Your task to perform on an android device: Go to wifi settings Image 0: 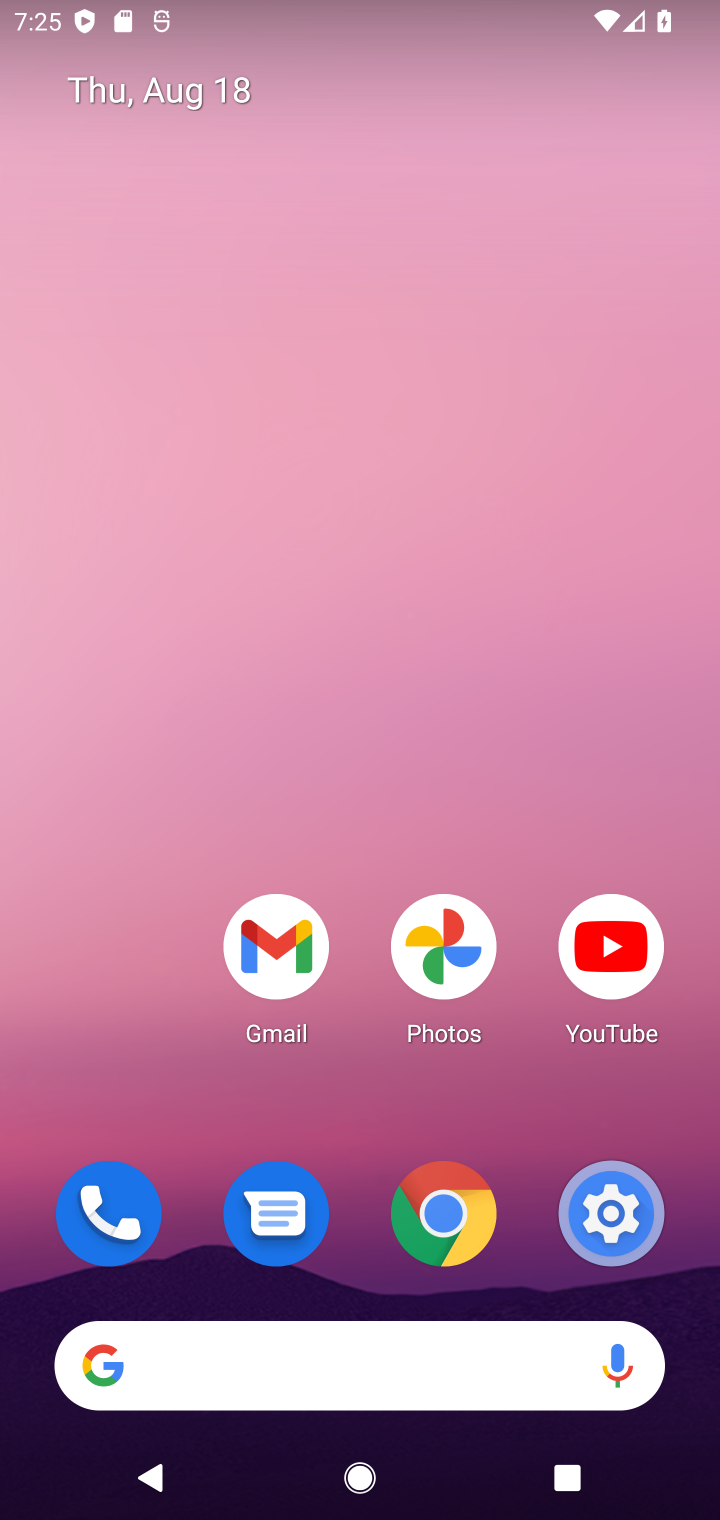
Step 0: task complete